Your task to perform on an android device: turn off data saver in the chrome app Image 0: 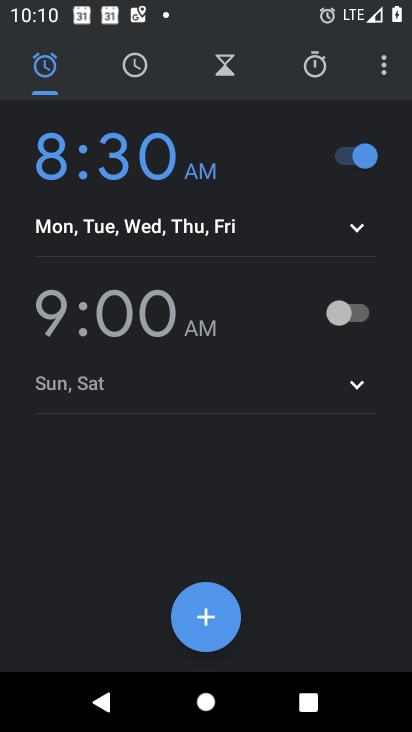
Step 0: press home button
Your task to perform on an android device: turn off data saver in the chrome app Image 1: 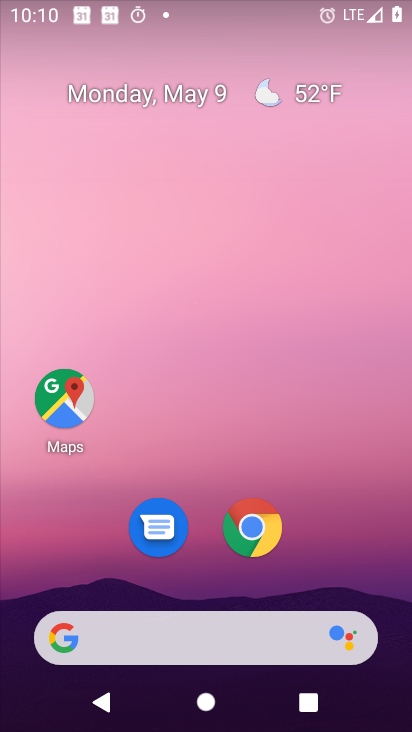
Step 1: click (253, 529)
Your task to perform on an android device: turn off data saver in the chrome app Image 2: 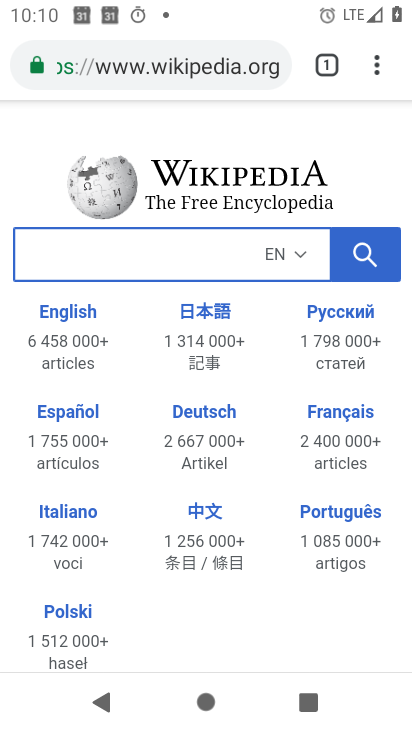
Step 2: click (373, 68)
Your task to perform on an android device: turn off data saver in the chrome app Image 3: 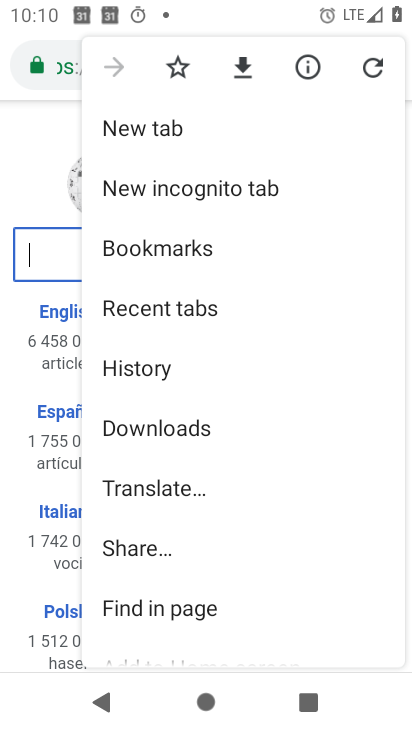
Step 3: drag from (243, 526) to (219, 126)
Your task to perform on an android device: turn off data saver in the chrome app Image 4: 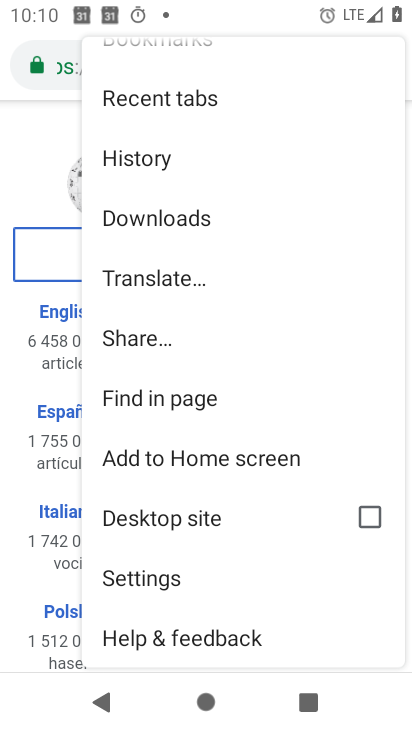
Step 4: click (170, 579)
Your task to perform on an android device: turn off data saver in the chrome app Image 5: 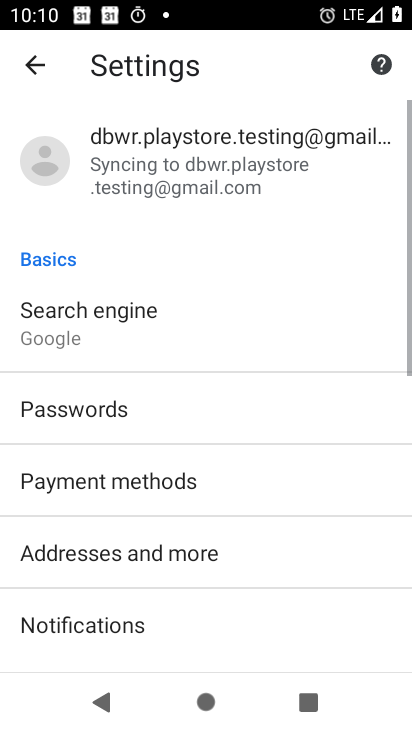
Step 5: drag from (196, 542) to (227, 210)
Your task to perform on an android device: turn off data saver in the chrome app Image 6: 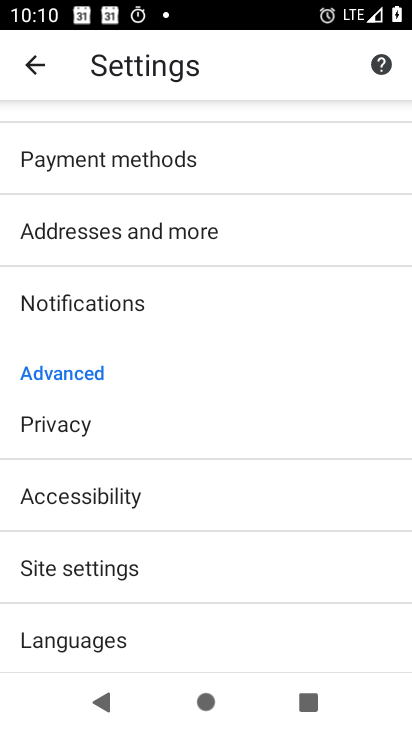
Step 6: drag from (127, 613) to (141, 280)
Your task to perform on an android device: turn off data saver in the chrome app Image 7: 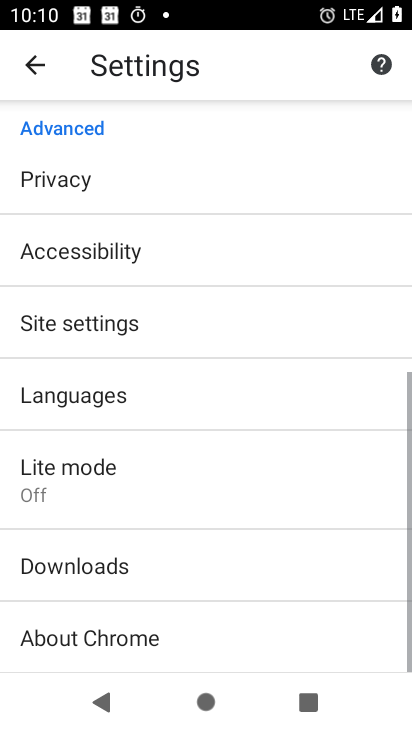
Step 7: click (110, 477)
Your task to perform on an android device: turn off data saver in the chrome app Image 8: 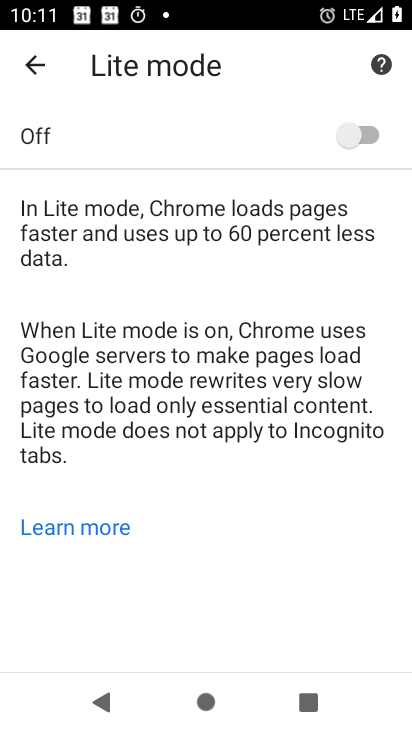
Step 8: task complete